Your task to perform on an android device: search for starred emails in the gmail app Image 0: 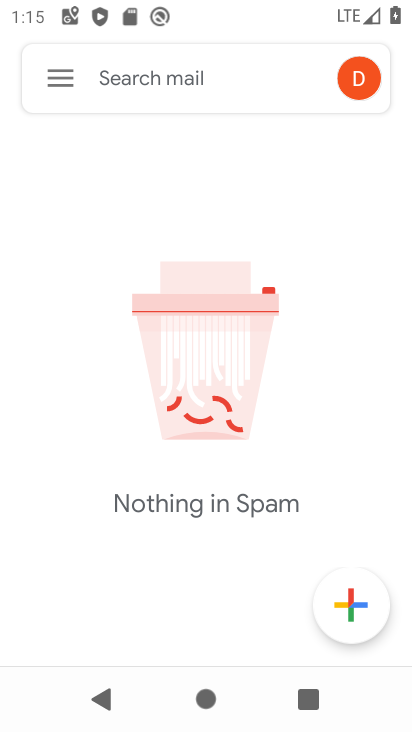
Step 0: press home button
Your task to perform on an android device: search for starred emails in the gmail app Image 1: 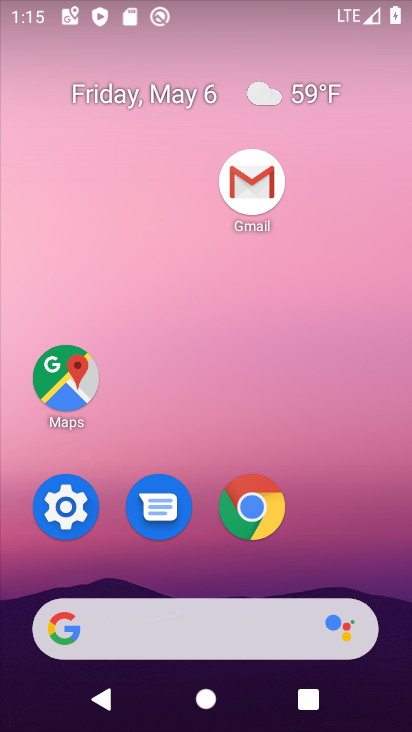
Step 1: click (243, 174)
Your task to perform on an android device: search for starred emails in the gmail app Image 2: 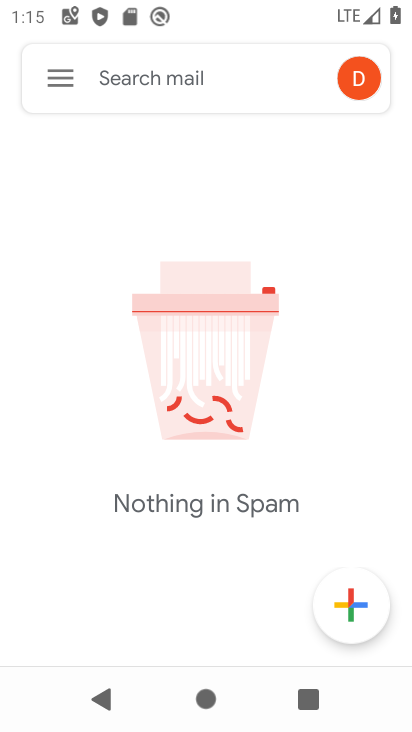
Step 2: click (58, 77)
Your task to perform on an android device: search for starred emails in the gmail app Image 3: 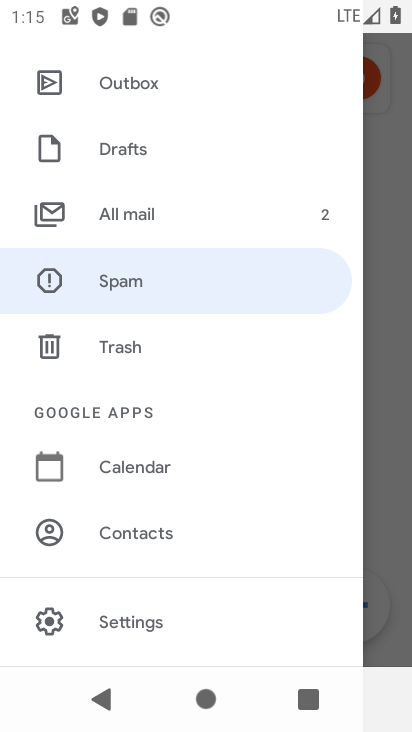
Step 3: drag from (213, 331) to (228, 686)
Your task to perform on an android device: search for starred emails in the gmail app Image 4: 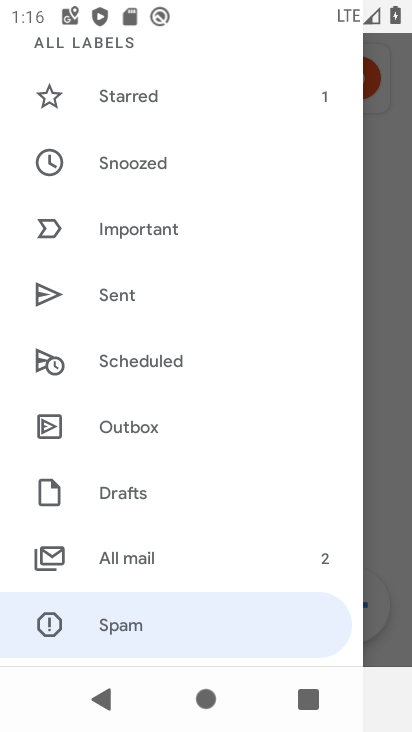
Step 4: click (126, 92)
Your task to perform on an android device: search for starred emails in the gmail app Image 5: 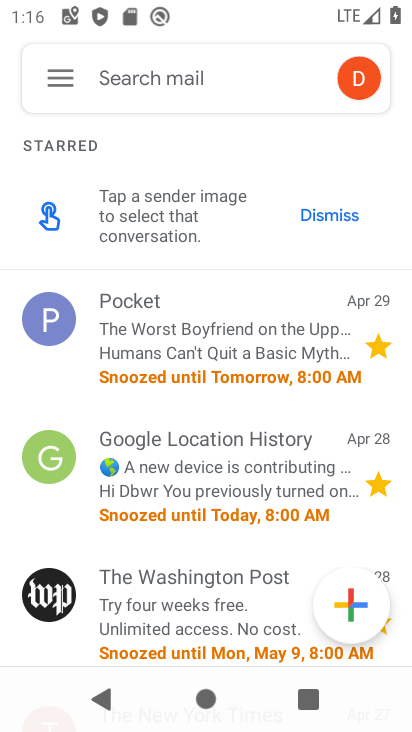
Step 5: task complete